Your task to perform on an android device: Do I have any events tomorrow? Image 0: 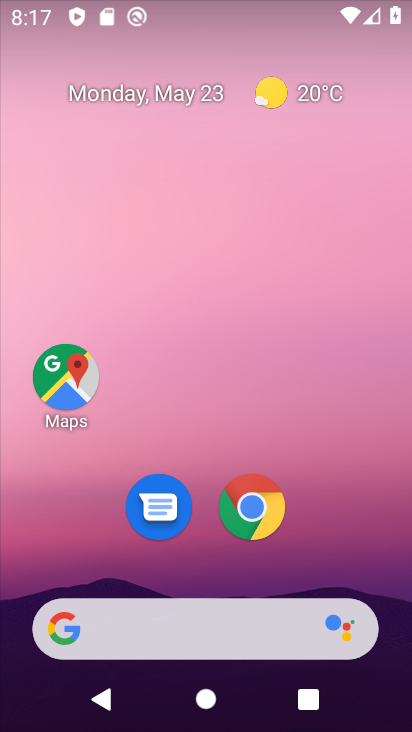
Step 0: drag from (359, 588) to (365, 1)
Your task to perform on an android device: Do I have any events tomorrow? Image 1: 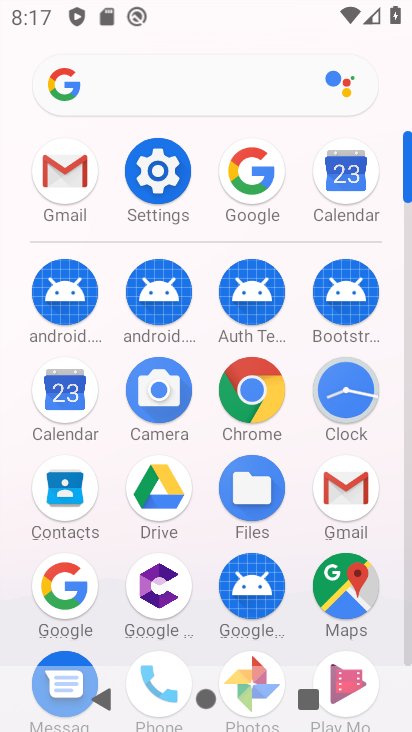
Step 1: click (346, 173)
Your task to perform on an android device: Do I have any events tomorrow? Image 2: 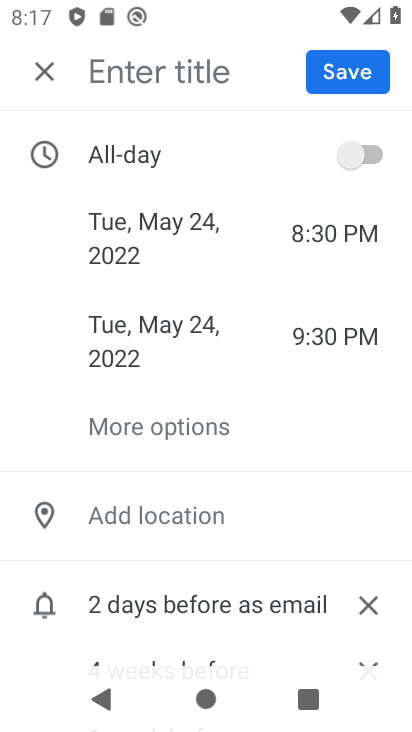
Step 2: task complete